Your task to perform on an android device: change timer sound Image 0: 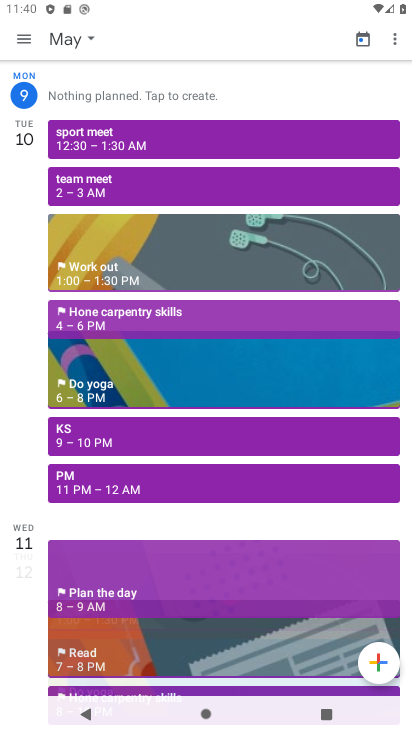
Step 0: press back button
Your task to perform on an android device: change timer sound Image 1: 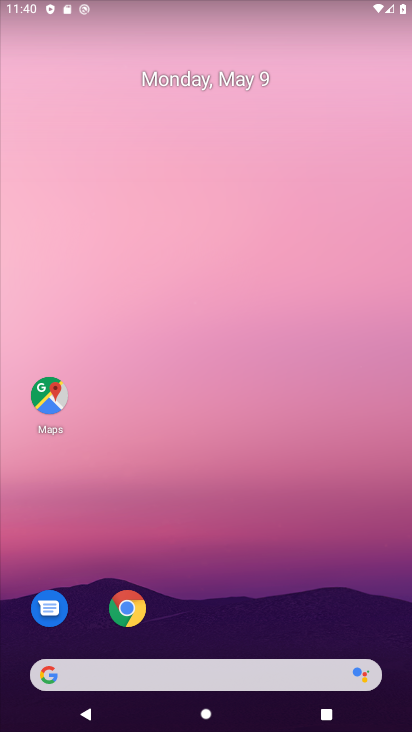
Step 1: drag from (203, 678) to (335, 109)
Your task to perform on an android device: change timer sound Image 2: 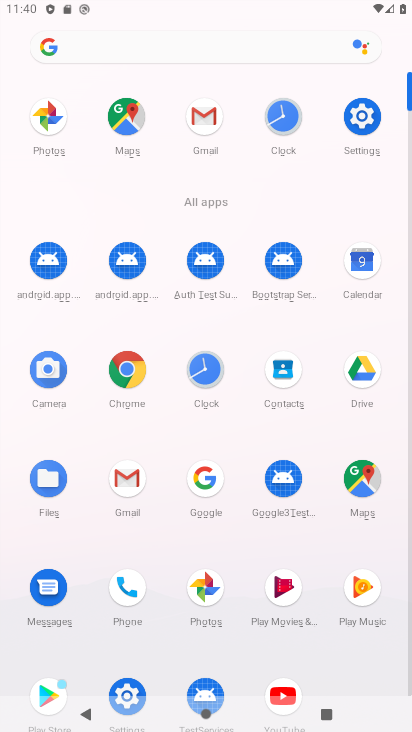
Step 2: click (206, 372)
Your task to perform on an android device: change timer sound Image 3: 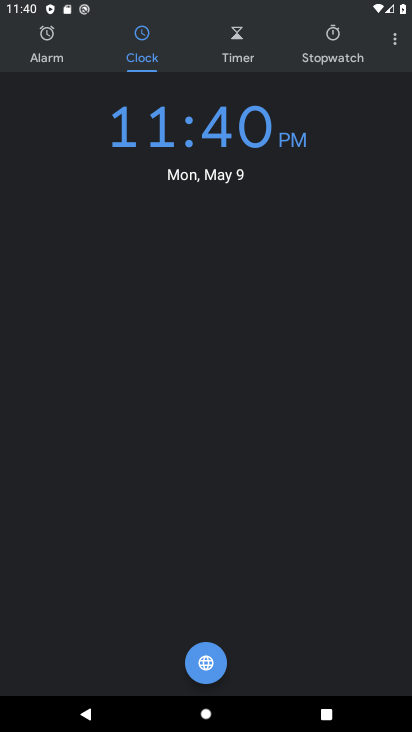
Step 3: click (399, 39)
Your task to perform on an android device: change timer sound Image 4: 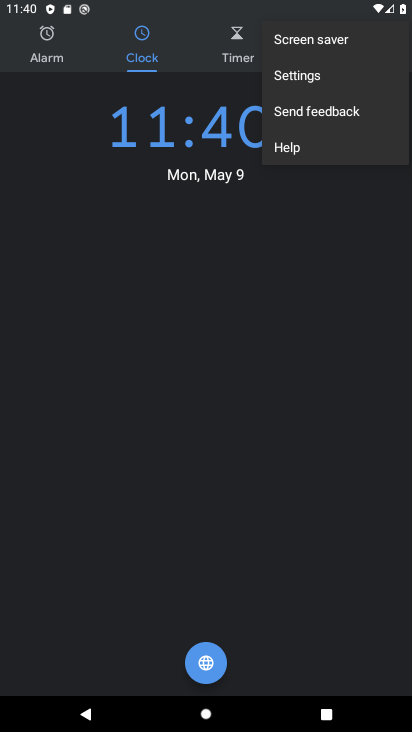
Step 4: click (361, 82)
Your task to perform on an android device: change timer sound Image 5: 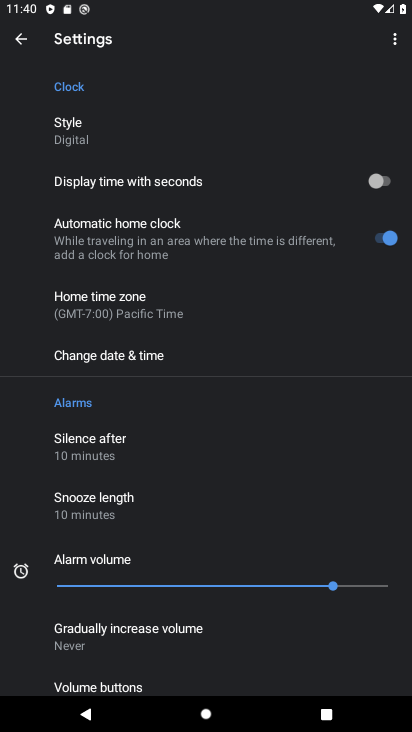
Step 5: drag from (158, 658) to (235, 401)
Your task to perform on an android device: change timer sound Image 6: 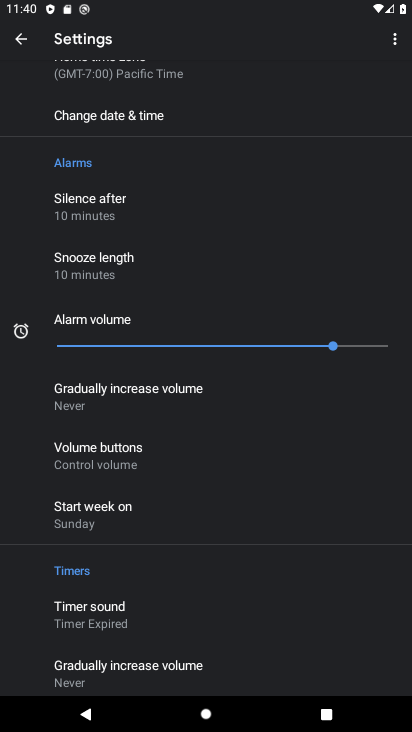
Step 6: click (156, 618)
Your task to perform on an android device: change timer sound Image 7: 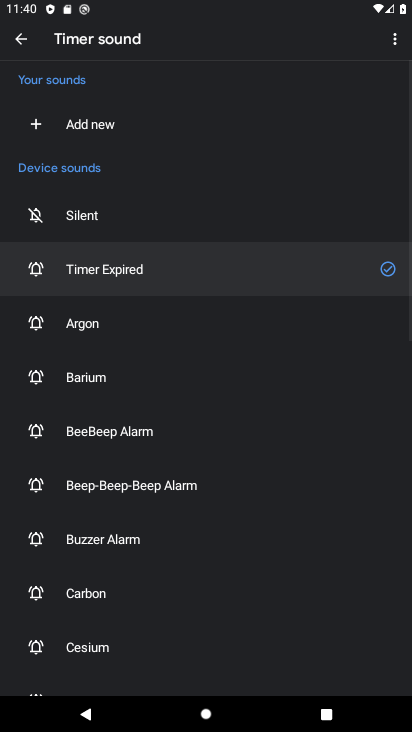
Step 7: click (142, 651)
Your task to perform on an android device: change timer sound Image 8: 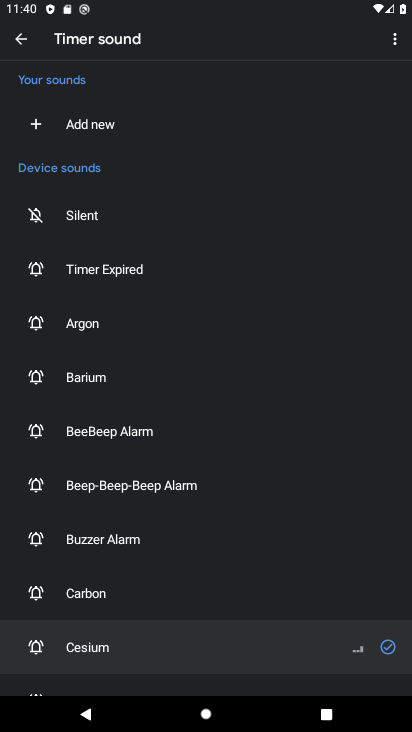
Step 8: task complete